Your task to perform on an android device: Go to Google Image 0: 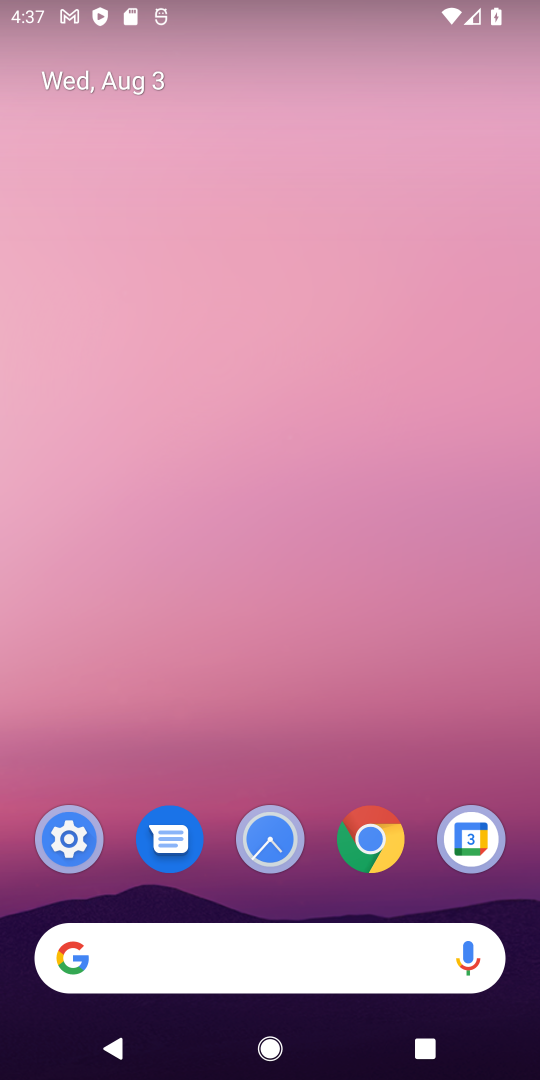
Step 0: drag from (356, 739) to (324, 11)
Your task to perform on an android device: Go to Google Image 1: 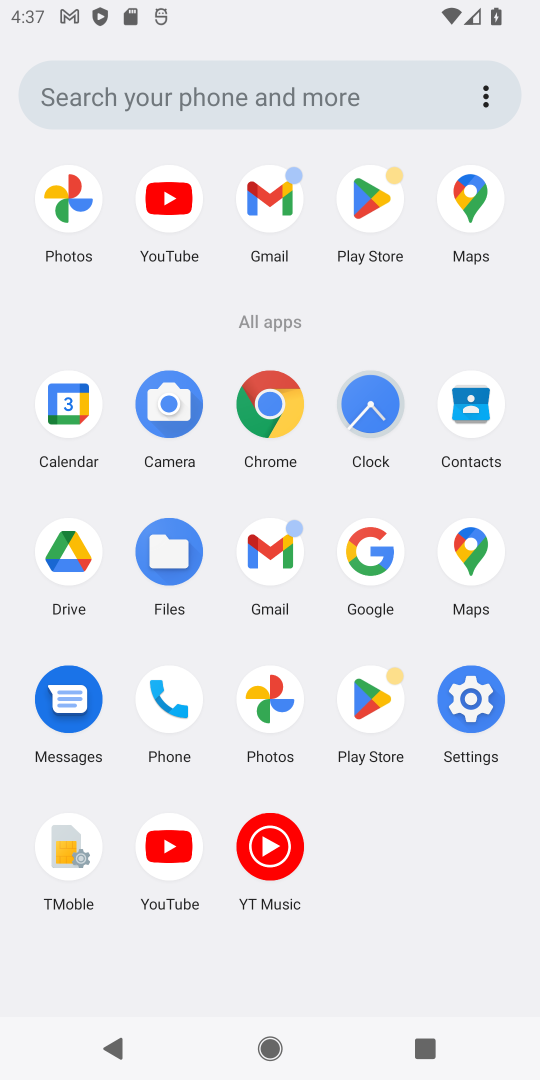
Step 1: click (373, 556)
Your task to perform on an android device: Go to Google Image 2: 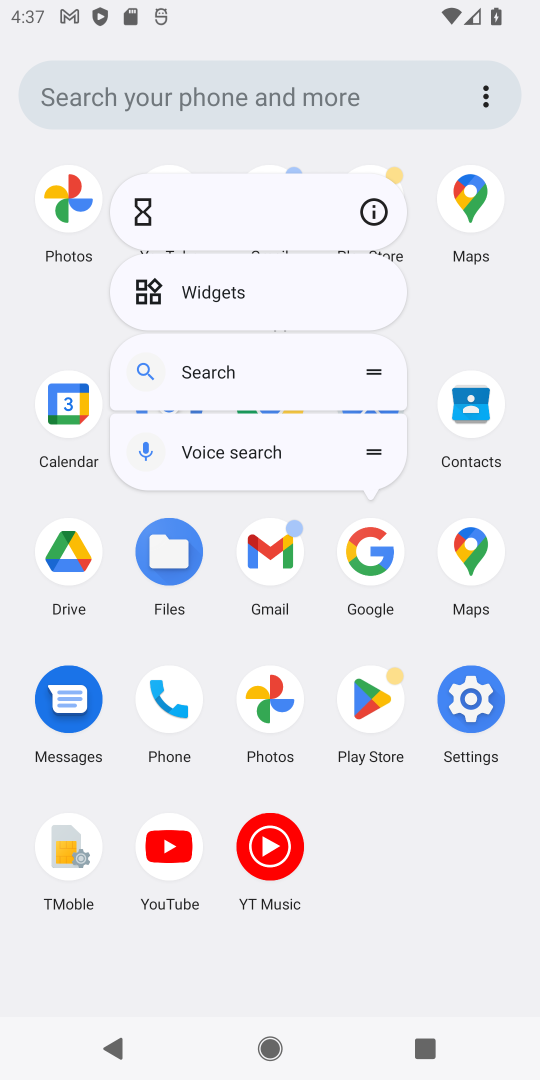
Step 2: click (369, 556)
Your task to perform on an android device: Go to Google Image 3: 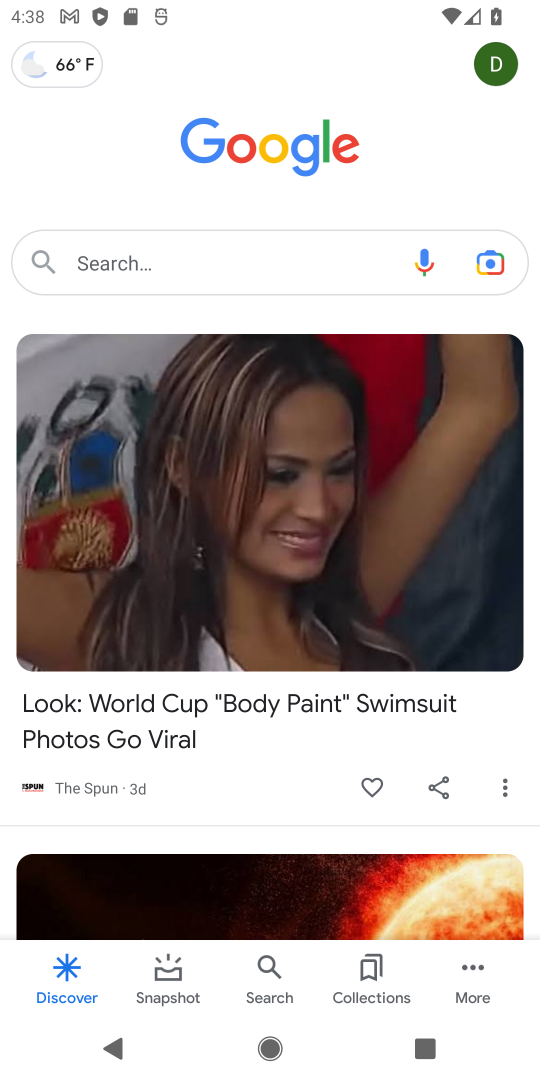
Step 3: task complete